Your task to perform on an android device: Check the weather Image 0: 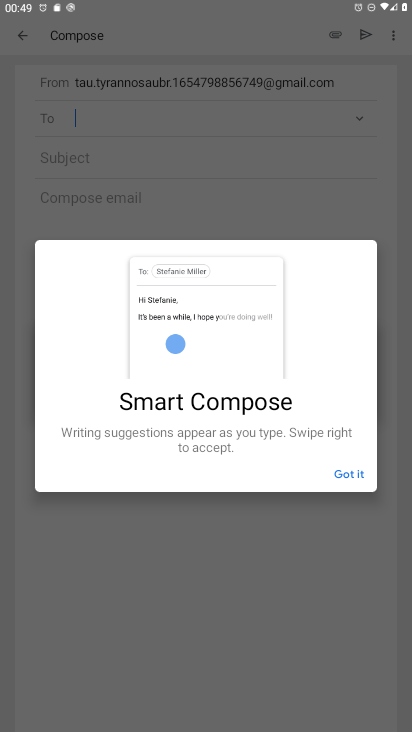
Step 0: press home button
Your task to perform on an android device: Check the weather Image 1: 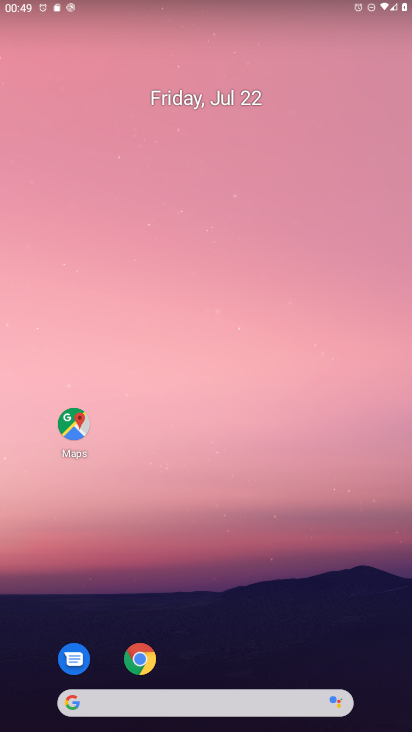
Step 1: drag from (188, 698) to (213, 287)
Your task to perform on an android device: Check the weather Image 2: 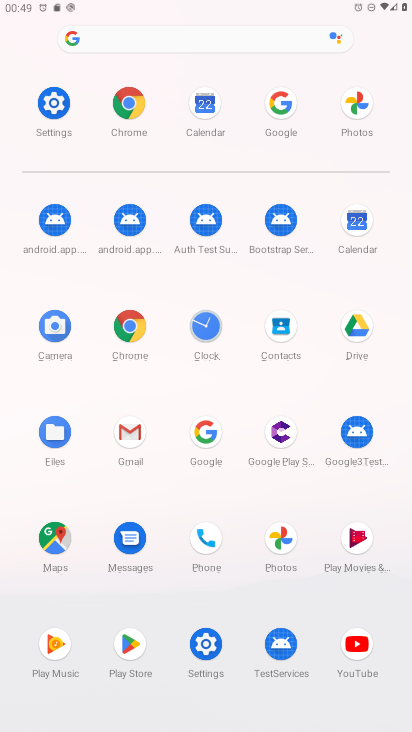
Step 2: click (280, 102)
Your task to perform on an android device: Check the weather Image 3: 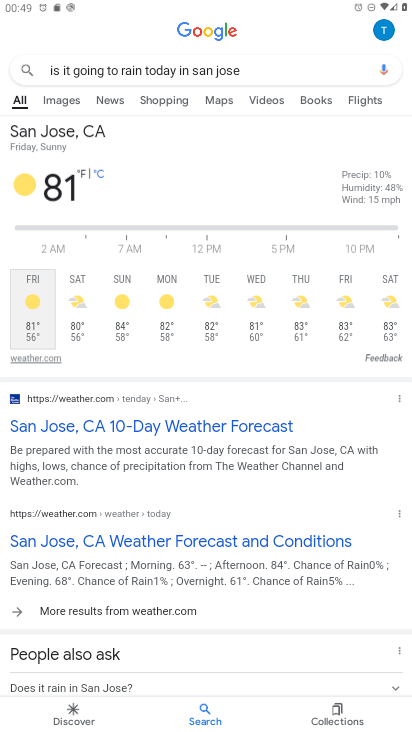
Step 3: click (291, 71)
Your task to perform on an android device: Check the weather Image 4: 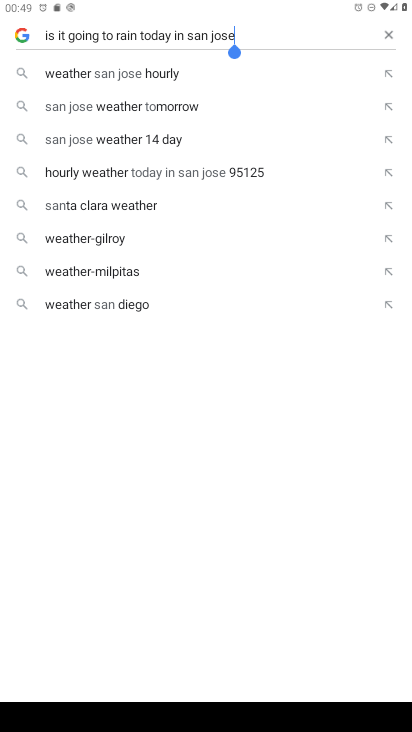
Step 4: click (391, 35)
Your task to perform on an android device: Check the weather Image 5: 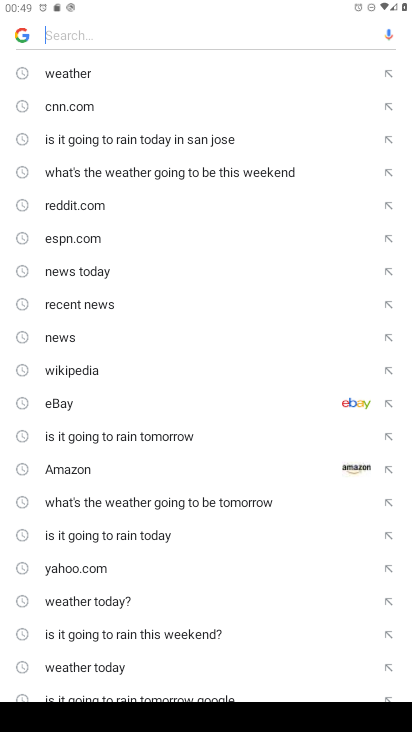
Step 5: click (83, 75)
Your task to perform on an android device: Check the weather Image 6: 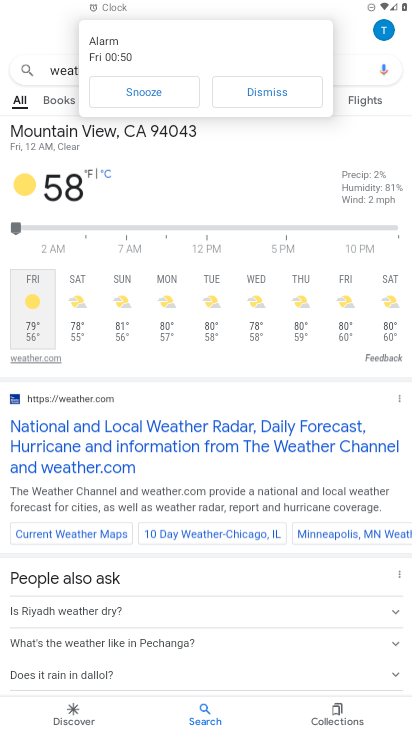
Step 6: task complete